Your task to perform on an android device: open a bookmark in the chrome app Image 0: 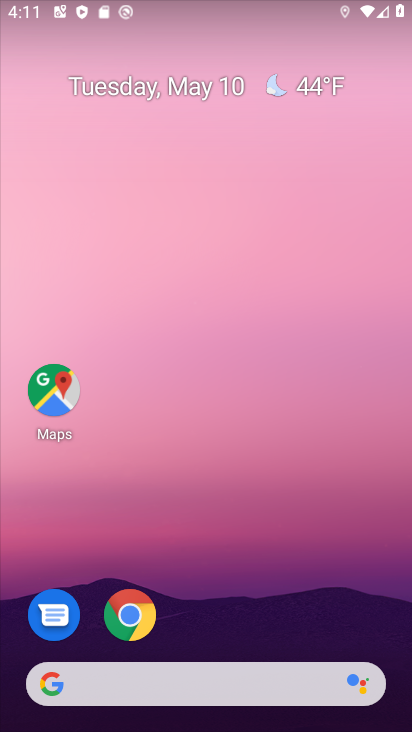
Step 0: click (133, 615)
Your task to perform on an android device: open a bookmark in the chrome app Image 1: 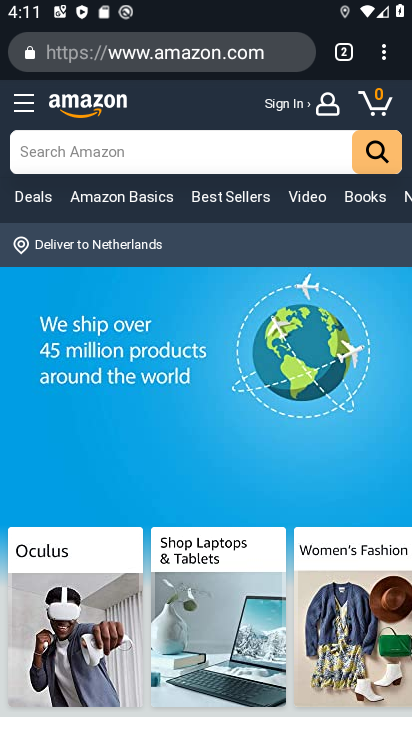
Step 1: click (386, 51)
Your task to perform on an android device: open a bookmark in the chrome app Image 2: 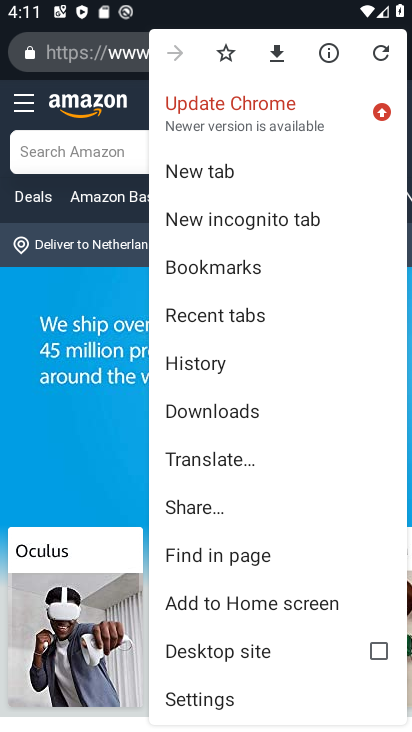
Step 2: click (232, 261)
Your task to perform on an android device: open a bookmark in the chrome app Image 3: 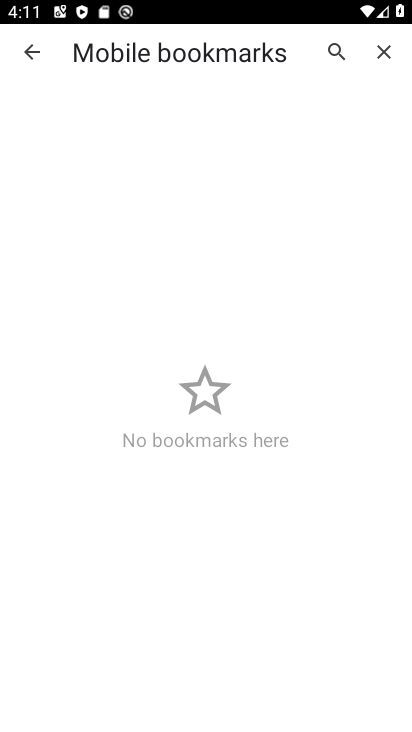
Step 3: task complete